Your task to perform on an android device: stop showing notifications on the lock screen Image 0: 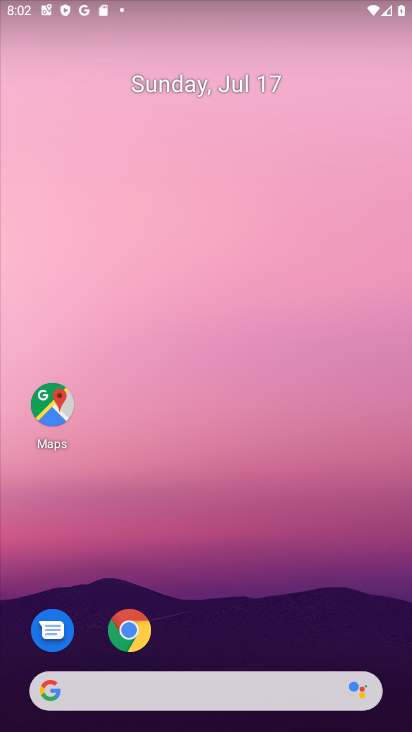
Step 0: click (150, 178)
Your task to perform on an android device: stop showing notifications on the lock screen Image 1: 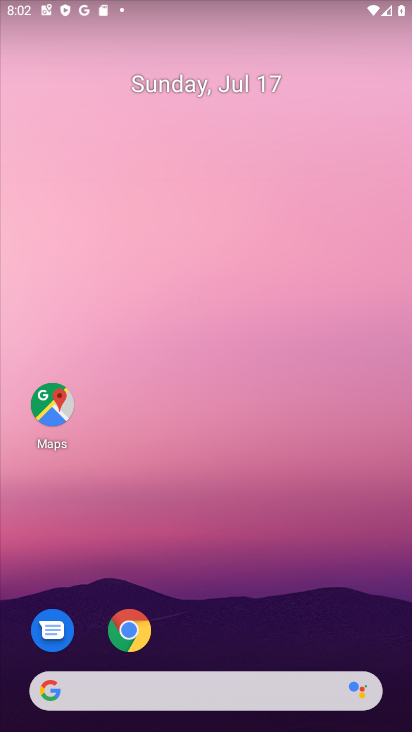
Step 1: drag from (188, 267) to (191, 109)
Your task to perform on an android device: stop showing notifications on the lock screen Image 2: 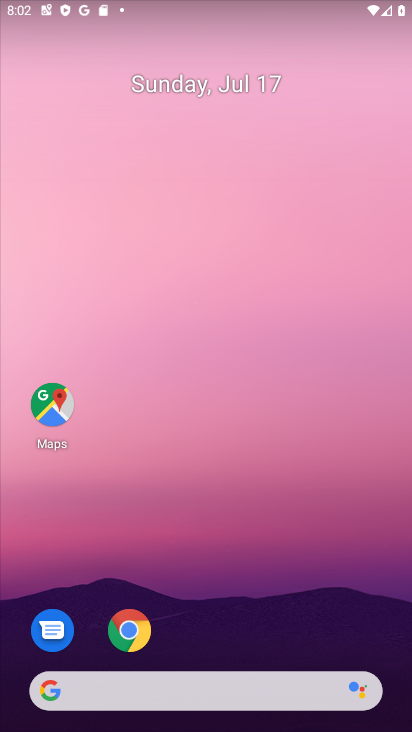
Step 2: drag from (193, 354) to (193, 110)
Your task to perform on an android device: stop showing notifications on the lock screen Image 3: 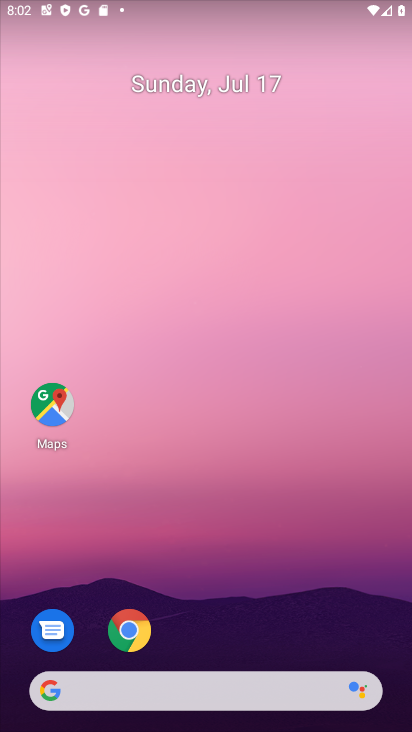
Step 3: drag from (191, 637) to (205, 19)
Your task to perform on an android device: stop showing notifications on the lock screen Image 4: 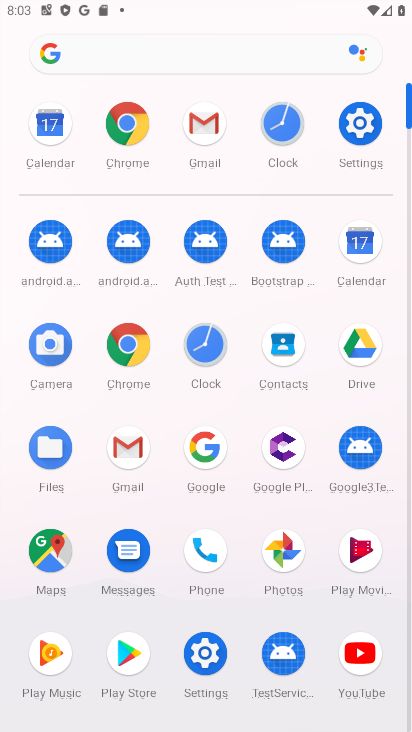
Step 4: click (204, 665)
Your task to perform on an android device: stop showing notifications on the lock screen Image 5: 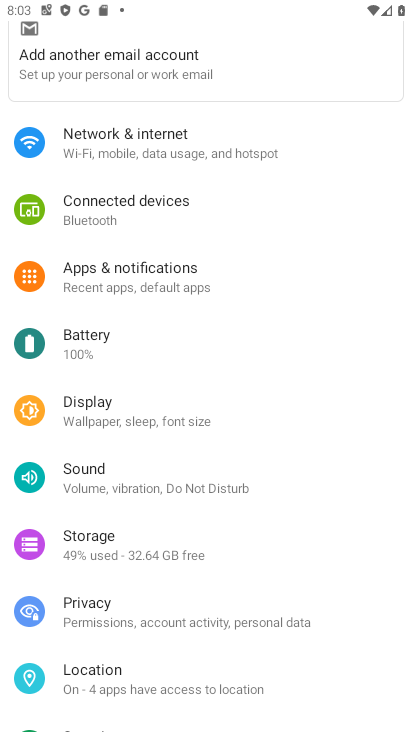
Step 5: click (162, 275)
Your task to perform on an android device: stop showing notifications on the lock screen Image 6: 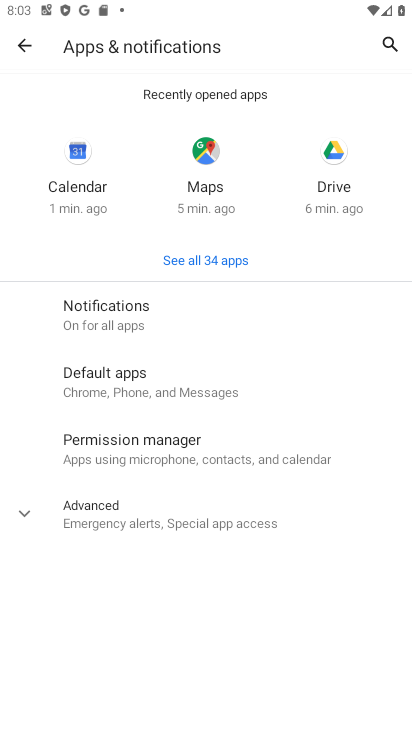
Step 6: click (87, 317)
Your task to perform on an android device: stop showing notifications on the lock screen Image 7: 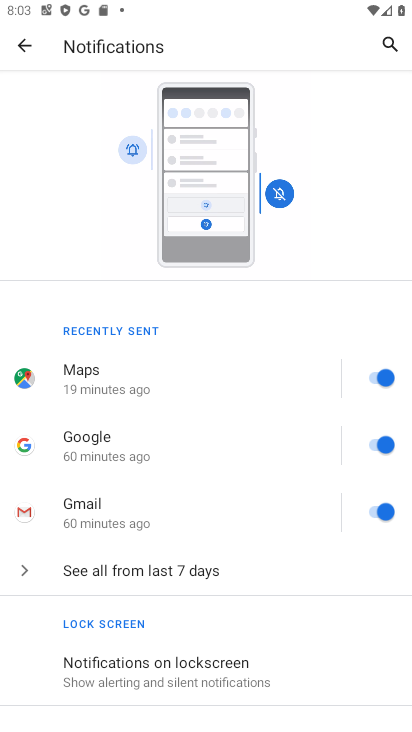
Step 7: drag from (171, 519) to (175, 439)
Your task to perform on an android device: stop showing notifications on the lock screen Image 8: 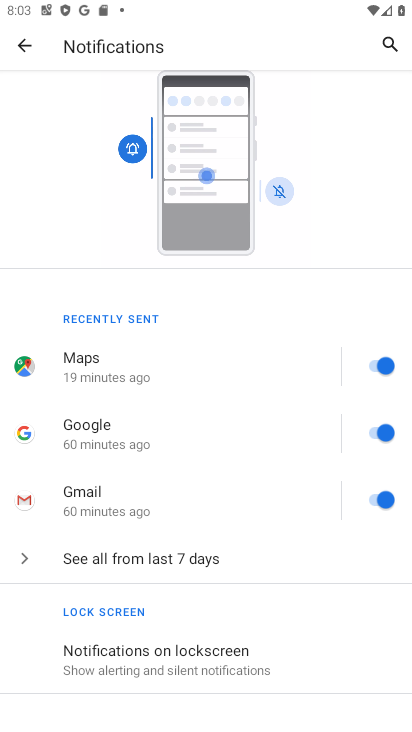
Step 8: drag from (209, 609) to (233, 435)
Your task to perform on an android device: stop showing notifications on the lock screen Image 9: 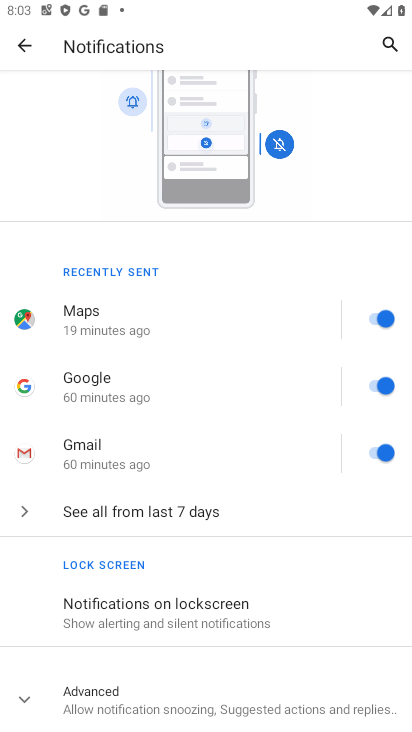
Step 9: click (108, 602)
Your task to perform on an android device: stop showing notifications on the lock screen Image 10: 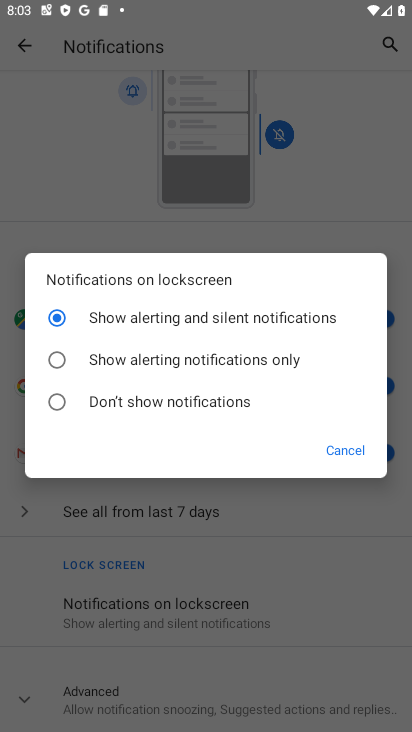
Step 10: click (57, 404)
Your task to perform on an android device: stop showing notifications on the lock screen Image 11: 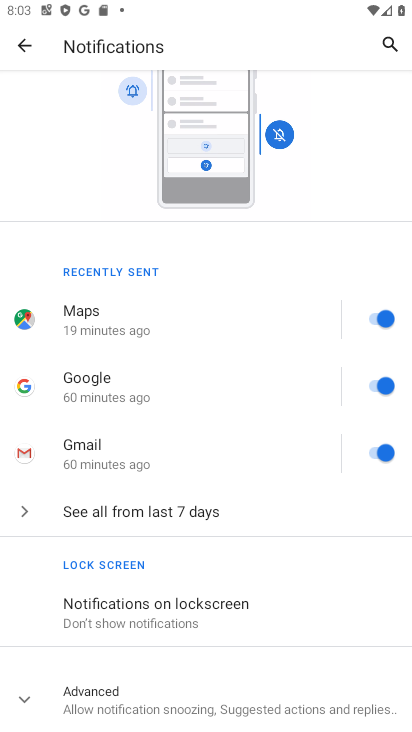
Step 11: task complete